Your task to perform on an android device: Do I have any events tomorrow? Image 0: 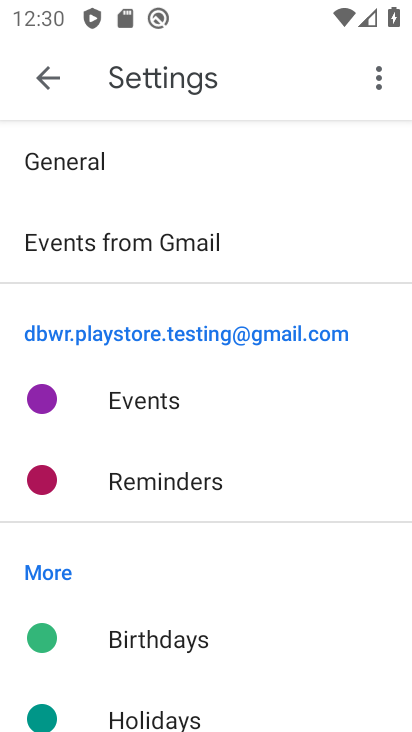
Step 0: press home button
Your task to perform on an android device: Do I have any events tomorrow? Image 1: 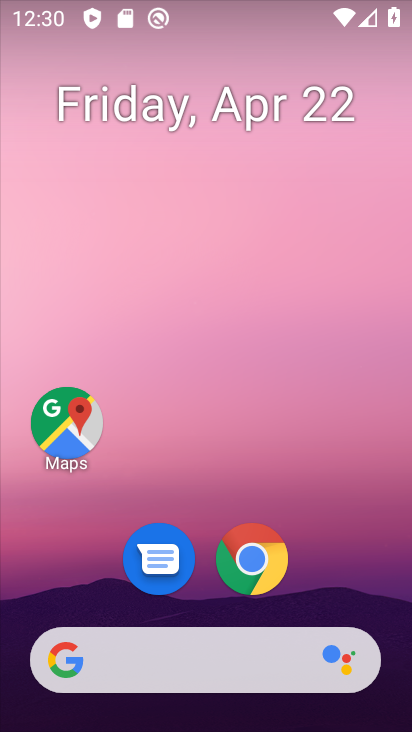
Step 1: drag from (359, 577) to (342, 161)
Your task to perform on an android device: Do I have any events tomorrow? Image 2: 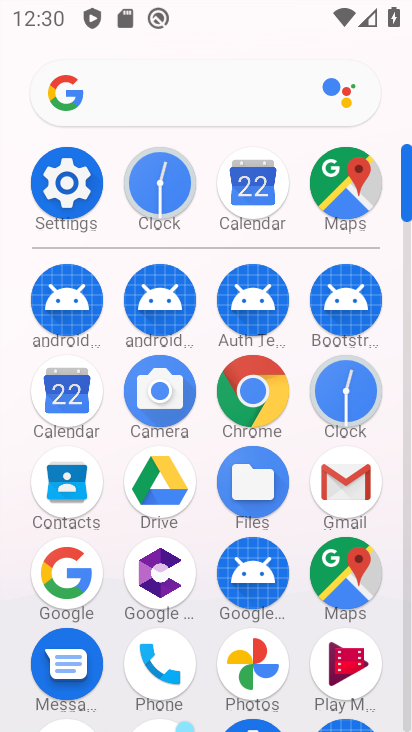
Step 2: click (61, 405)
Your task to perform on an android device: Do I have any events tomorrow? Image 3: 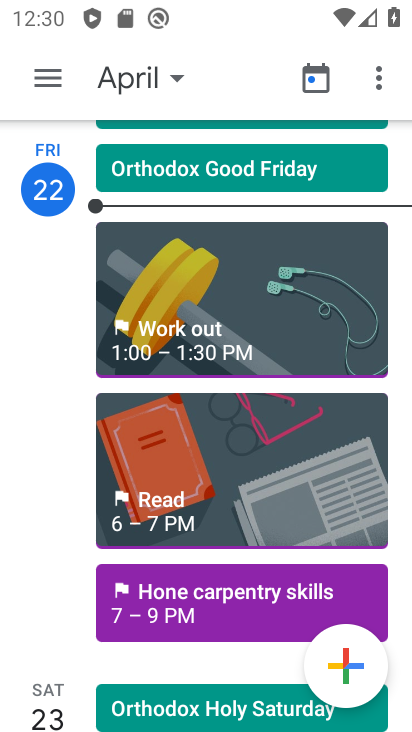
Step 3: drag from (287, 558) to (300, 212)
Your task to perform on an android device: Do I have any events tomorrow? Image 4: 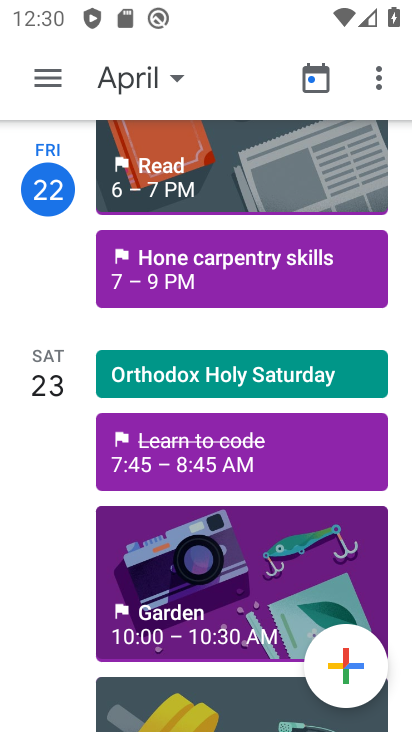
Step 4: click (218, 588)
Your task to perform on an android device: Do I have any events tomorrow? Image 5: 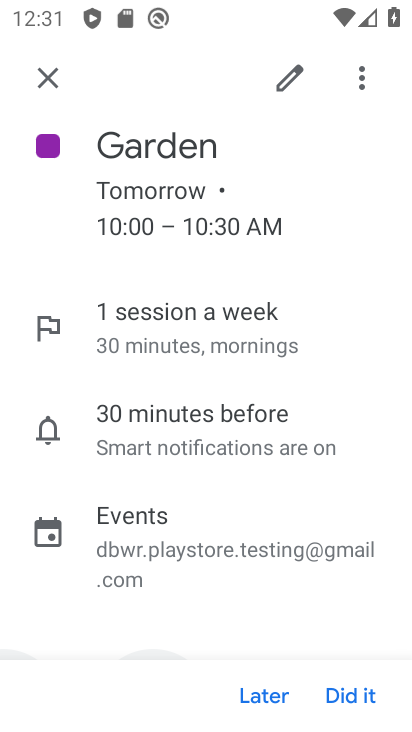
Step 5: task complete